Your task to perform on an android device: Open sound settings Image 0: 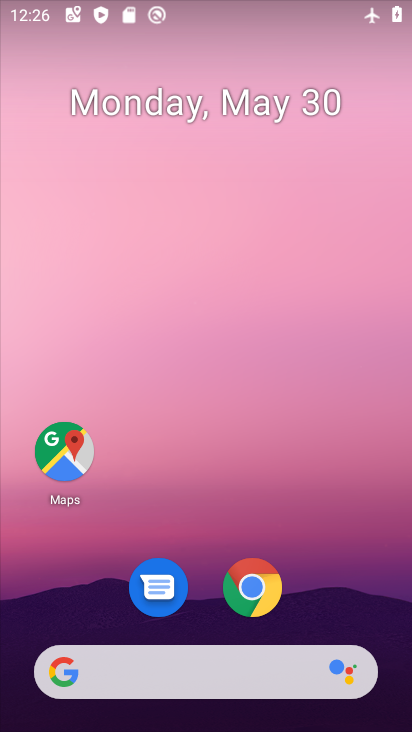
Step 0: drag from (165, 730) to (184, 79)
Your task to perform on an android device: Open sound settings Image 1: 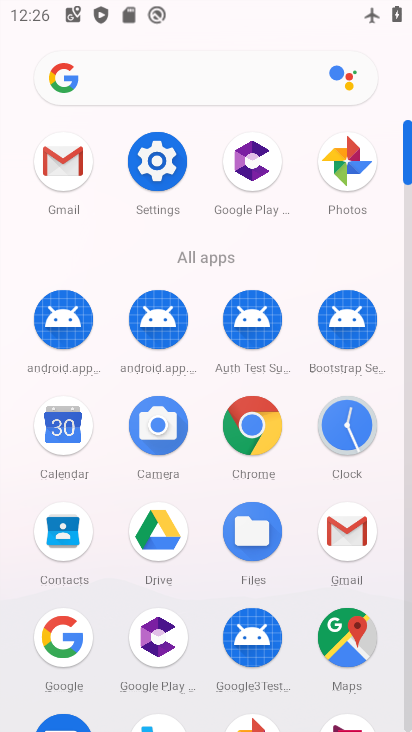
Step 1: click (156, 167)
Your task to perform on an android device: Open sound settings Image 2: 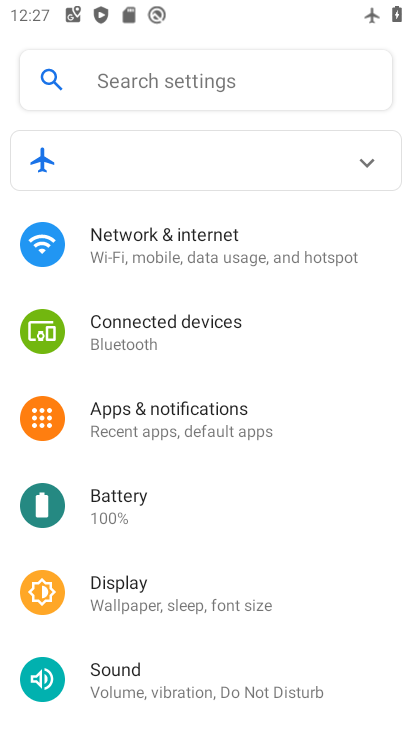
Step 2: click (244, 693)
Your task to perform on an android device: Open sound settings Image 3: 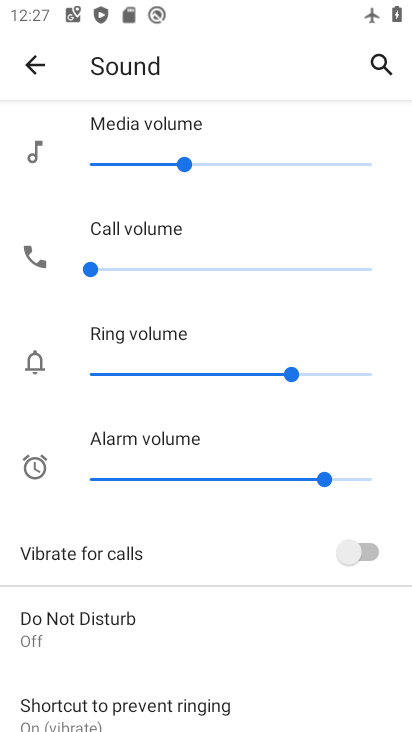
Step 3: task complete